Your task to perform on an android device: turn off picture-in-picture Image 0: 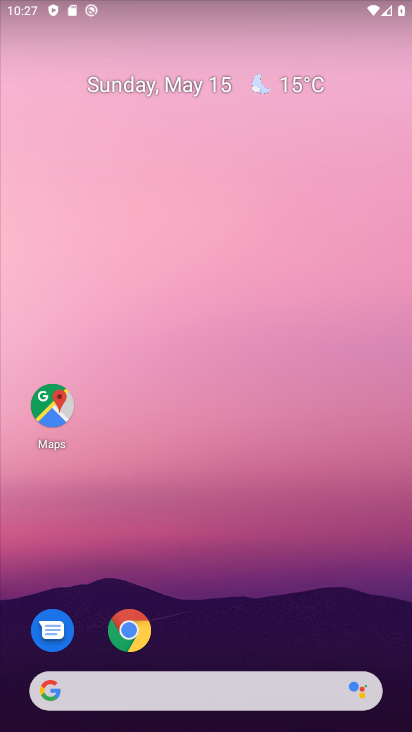
Step 0: drag from (243, 727) to (247, 128)
Your task to perform on an android device: turn off picture-in-picture Image 1: 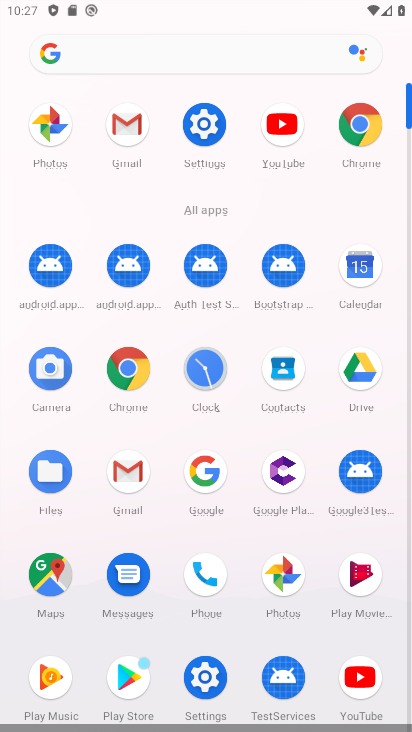
Step 1: click (206, 120)
Your task to perform on an android device: turn off picture-in-picture Image 2: 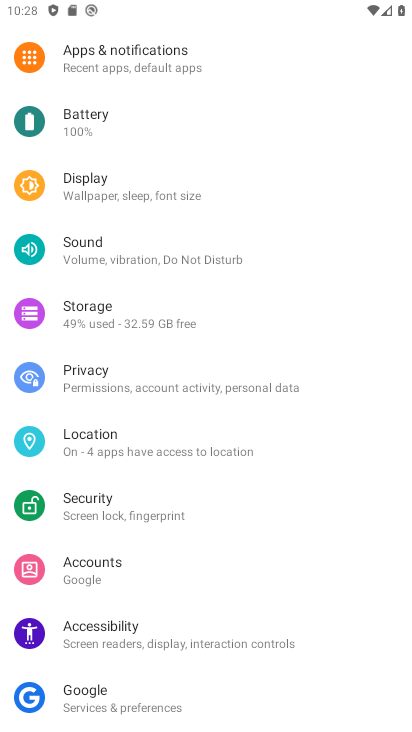
Step 2: click (140, 64)
Your task to perform on an android device: turn off picture-in-picture Image 3: 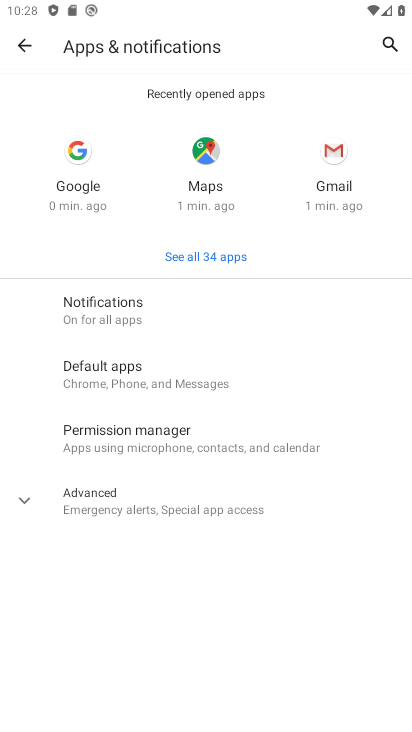
Step 3: click (90, 506)
Your task to perform on an android device: turn off picture-in-picture Image 4: 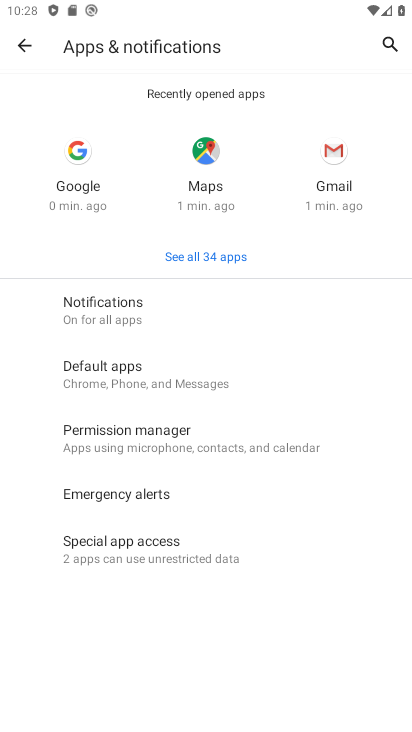
Step 4: click (165, 550)
Your task to perform on an android device: turn off picture-in-picture Image 5: 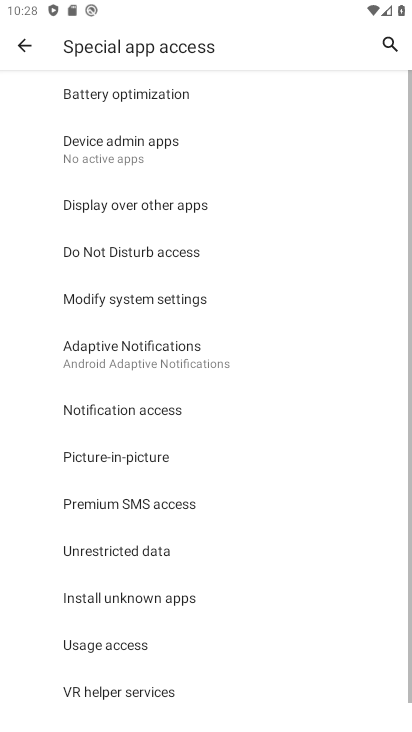
Step 5: drag from (219, 655) to (227, 471)
Your task to perform on an android device: turn off picture-in-picture Image 6: 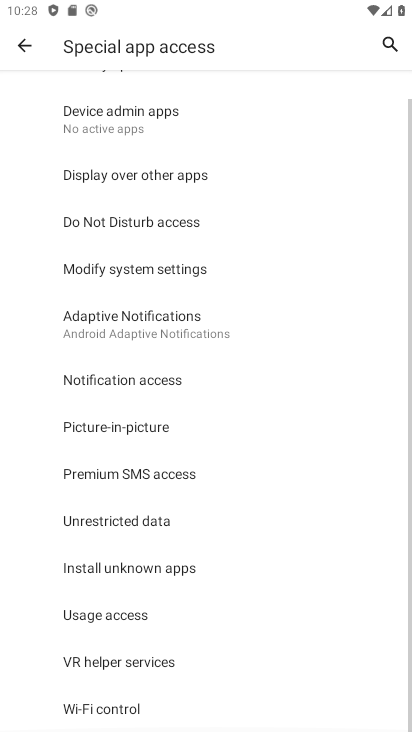
Step 6: click (153, 422)
Your task to perform on an android device: turn off picture-in-picture Image 7: 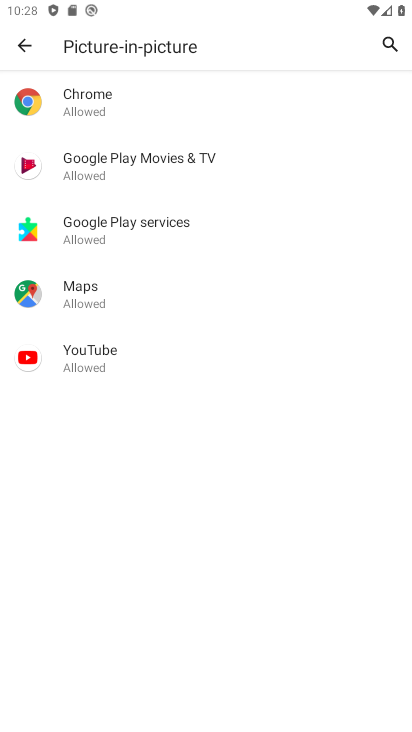
Step 7: click (91, 359)
Your task to perform on an android device: turn off picture-in-picture Image 8: 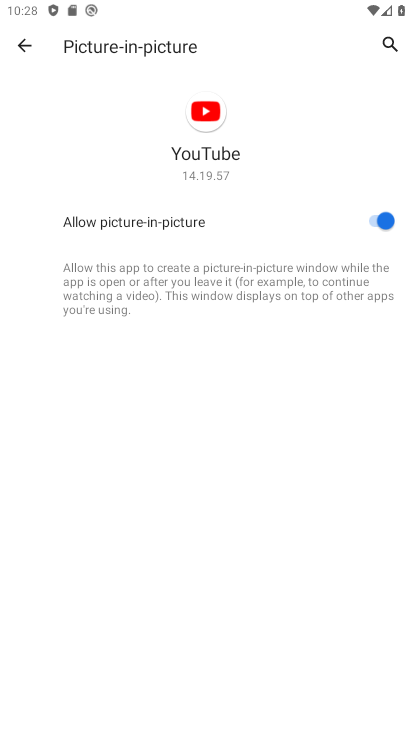
Step 8: click (370, 223)
Your task to perform on an android device: turn off picture-in-picture Image 9: 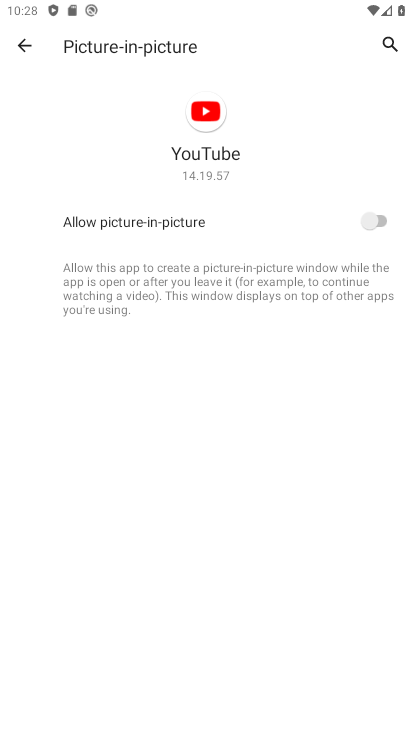
Step 9: task complete